Your task to perform on an android device: toggle location history Image 0: 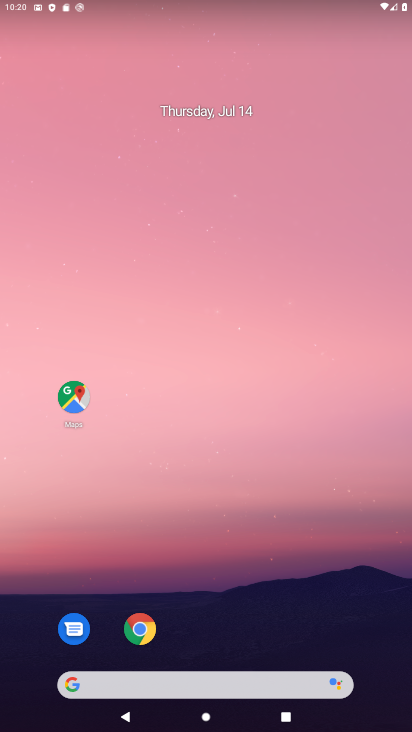
Step 0: drag from (293, 617) to (323, 9)
Your task to perform on an android device: toggle location history Image 1: 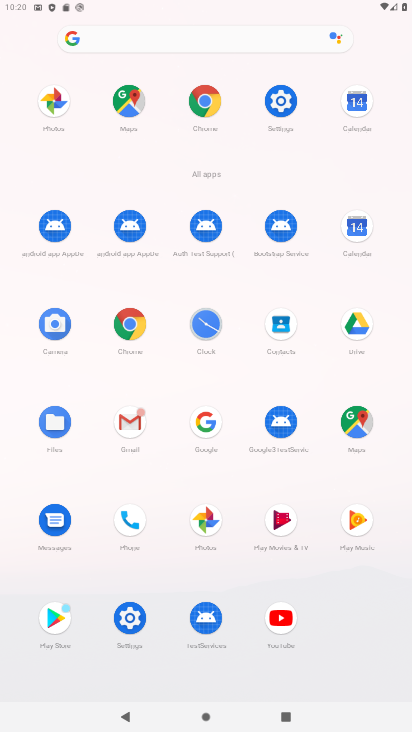
Step 1: click (284, 94)
Your task to perform on an android device: toggle location history Image 2: 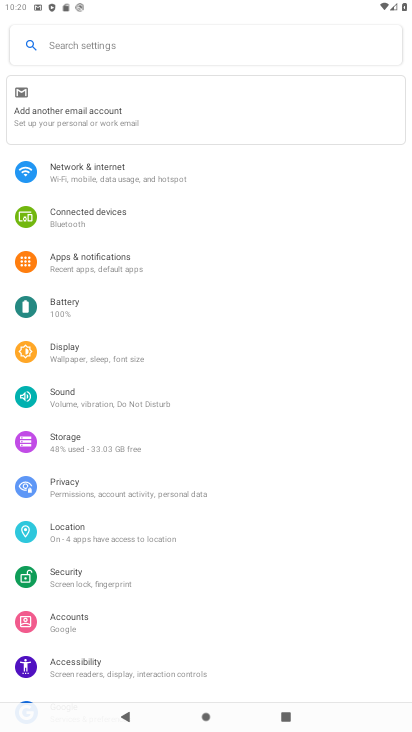
Step 2: click (145, 527)
Your task to perform on an android device: toggle location history Image 3: 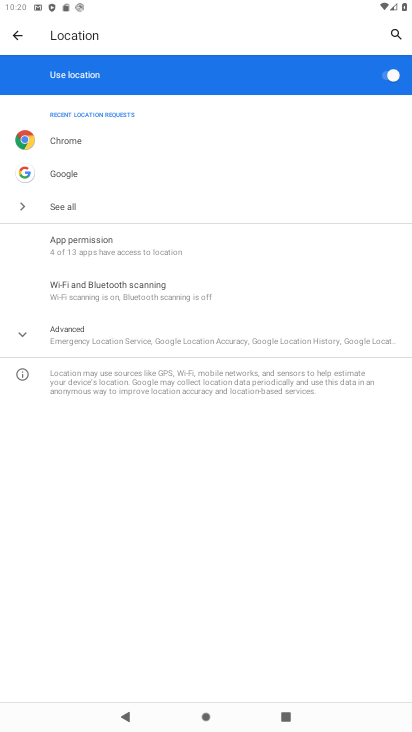
Step 3: click (38, 330)
Your task to perform on an android device: toggle location history Image 4: 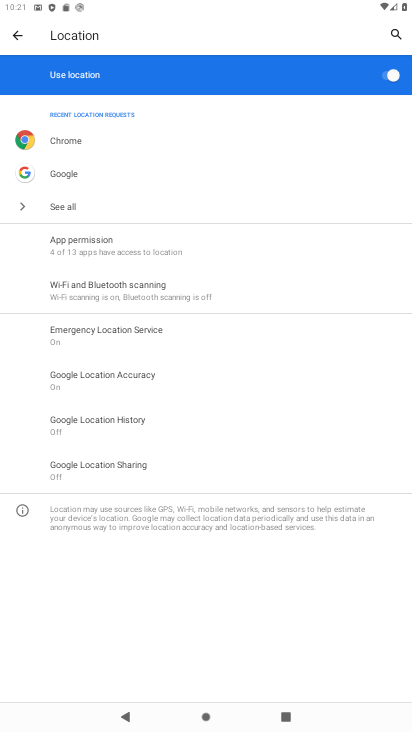
Step 4: click (118, 414)
Your task to perform on an android device: toggle location history Image 5: 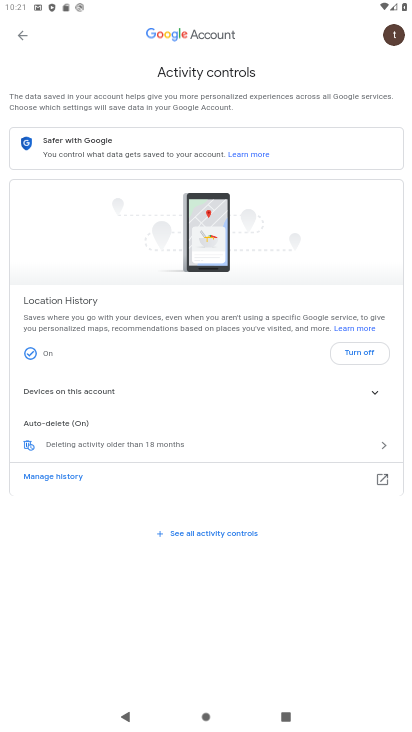
Step 5: click (344, 350)
Your task to perform on an android device: toggle location history Image 6: 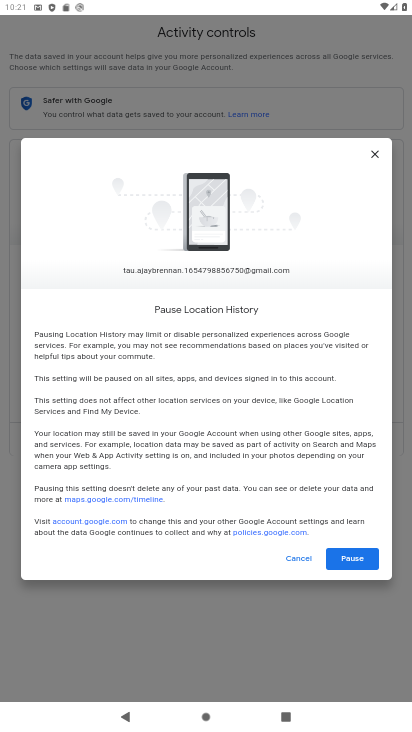
Step 6: click (353, 561)
Your task to perform on an android device: toggle location history Image 7: 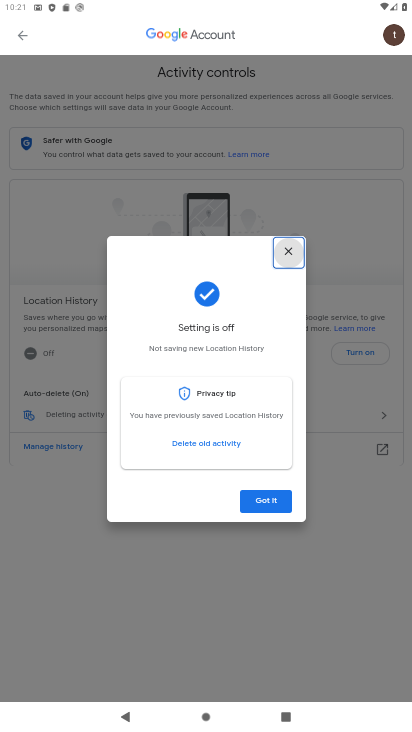
Step 7: click (279, 500)
Your task to perform on an android device: toggle location history Image 8: 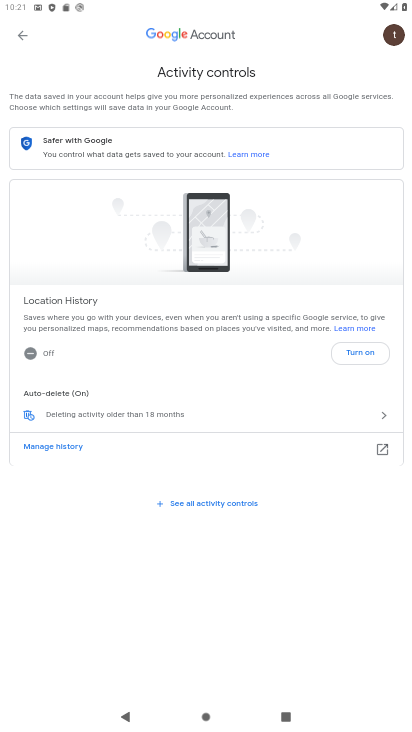
Step 8: task complete